Your task to perform on an android device: Open Youtube and go to the subscriptions tab Image 0: 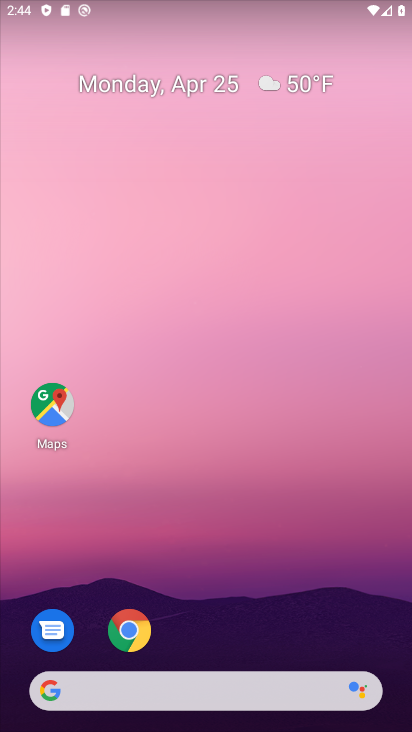
Step 0: drag from (199, 579) to (67, 73)
Your task to perform on an android device: Open Youtube and go to the subscriptions tab Image 1: 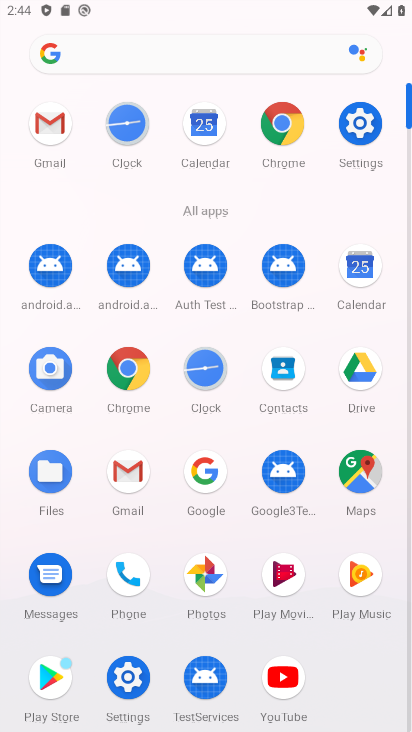
Step 1: click (288, 684)
Your task to perform on an android device: Open Youtube and go to the subscriptions tab Image 2: 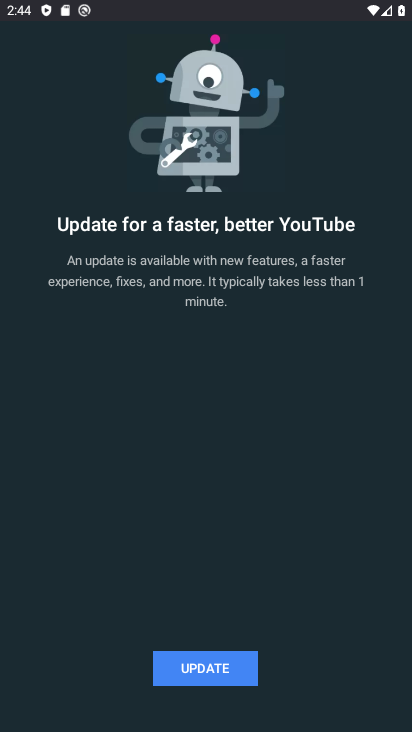
Step 2: click (209, 685)
Your task to perform on an android device: Open Youtube and go to the subscriptions tab Image 3: 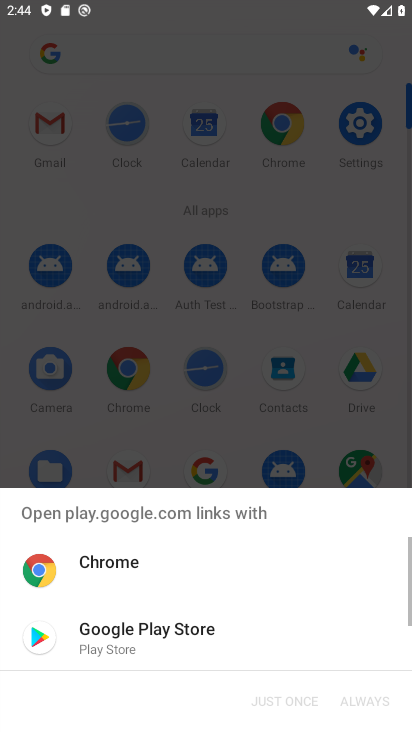
Step 3: click (122, 635)
Your task to perform on an android device: Open Youtube and go to the subscriptions tab Image 4: 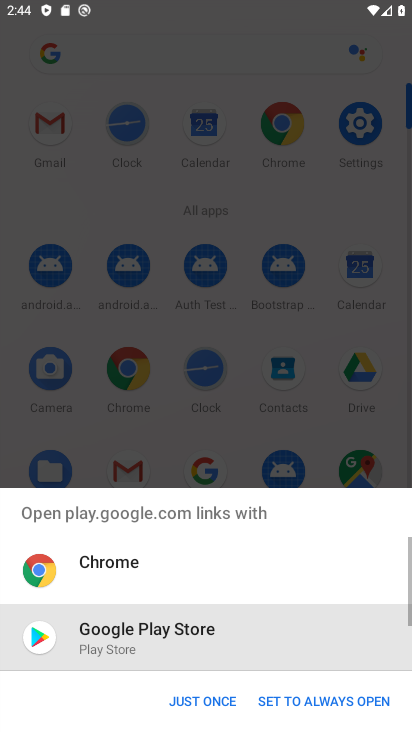
Step 4: click (206, 704)
Your task to perform on an android device: Open Youtube and go to the subscriptions tab Image 5: 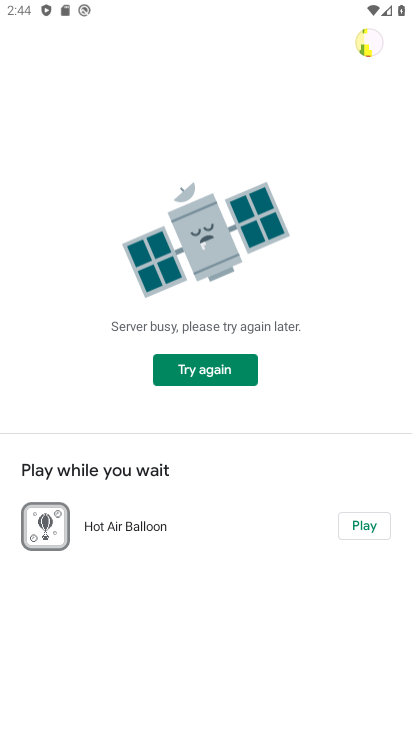
Step 5: click (212, 376)
Your task to perform on an android device: Open Youtube and go to the subscriptions tab Image 6: 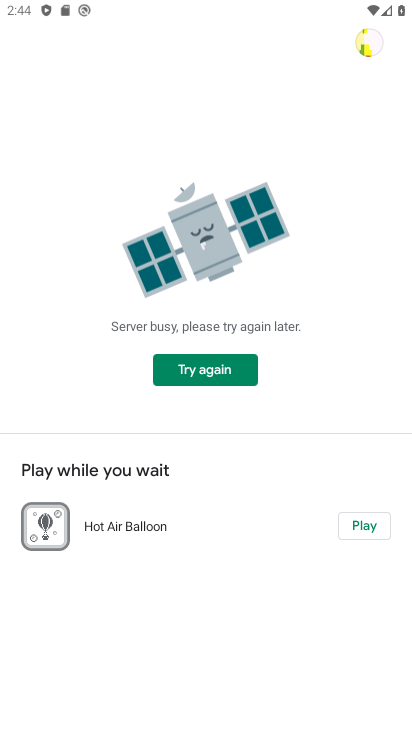
Step 6: click (212, 376)
Your task to perform on an android device: Open Youtube and go to the subscriptions tab Image 7: 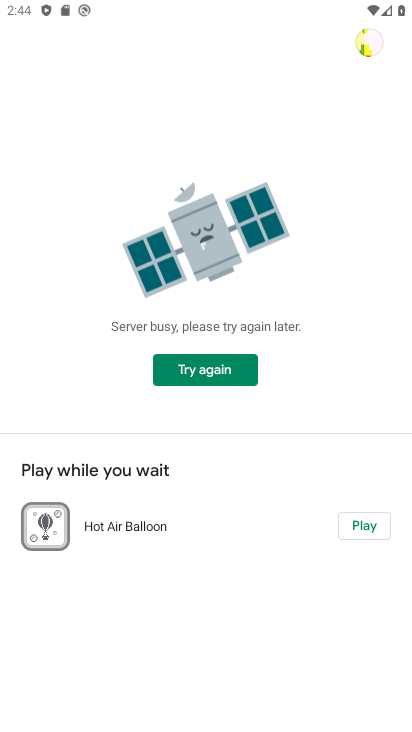
Step 7: press back button
Your task to perform on an android device: Open Youtube and go to the subscriptions tab Image 8: 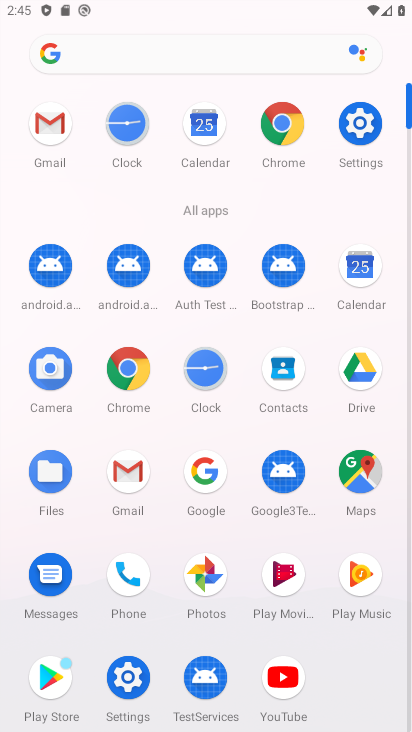
Step 8: click (294, 681)
Your task to perform on an android device: Open Youtube and go to the subscriptions tab Image 9: 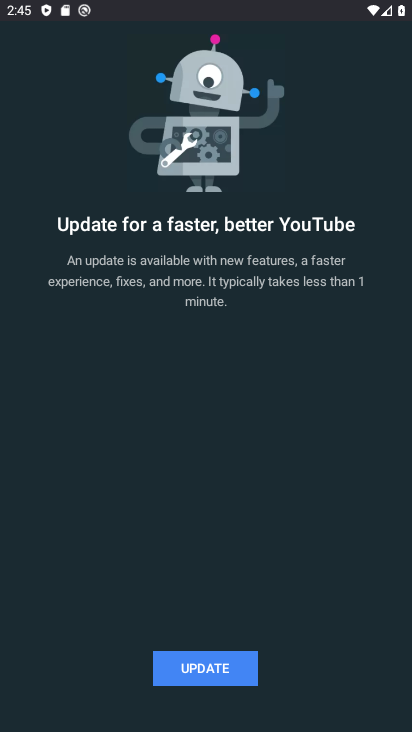
Step 9: task complete